Your task to perform on an android device: open sync settings in chrome Image 0: 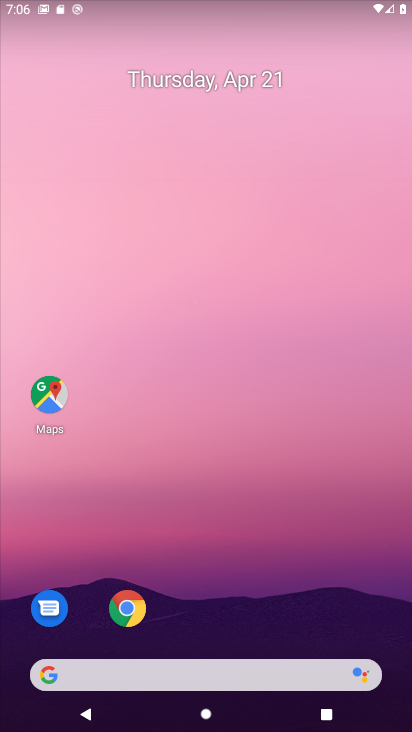
Step 0: click (121, 616)
Your task to perform on an android device: open sync settings in chrome Image 1: 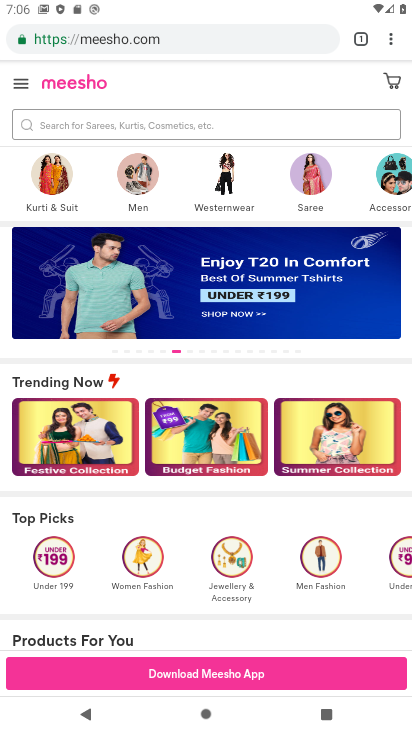
Step 1: drag from (391, 37) to (271, 508)
Your task to perform on an android device: open sync settings in chrome Image 2: 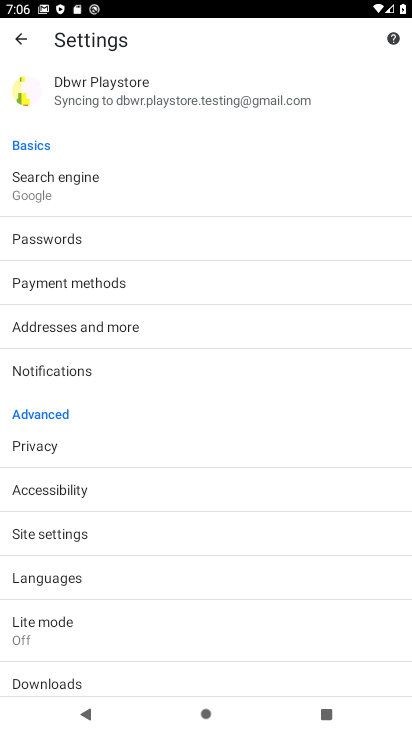
Step 2: drag from (112, 628) to (108, 348)
Your task to perform on an android device: open sync settings in chrome Image 3: 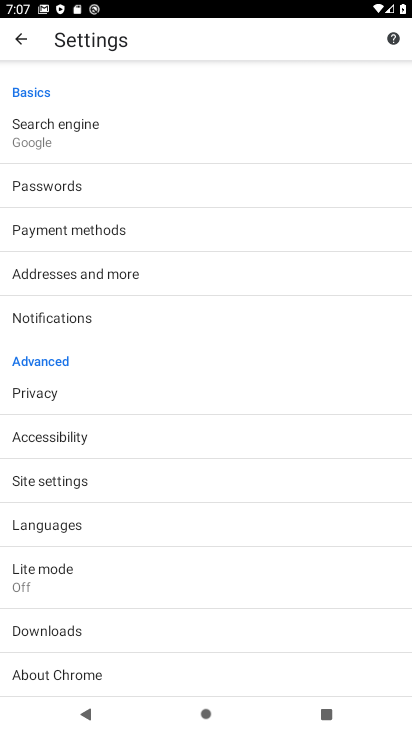
Step 3: click (85, 480)
Your task to perform on an android device: open sync settings in chrome Image 4: 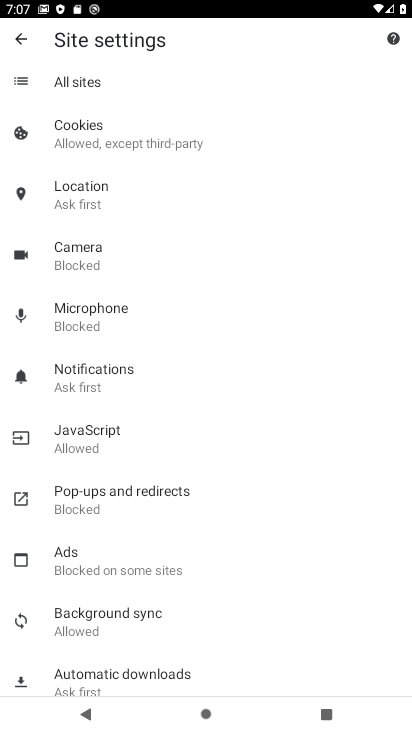
Step 4: drag from (139, 619) to (151, 420)
Your task to perform on an android device: open sync settings in chrome Image 5: 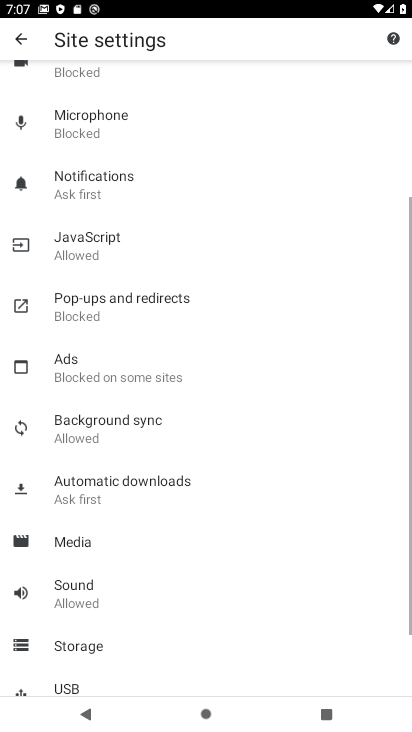
Step 5: click (150, 436)
Your task to perform on an android device: open sync settings in chrome Image 6: 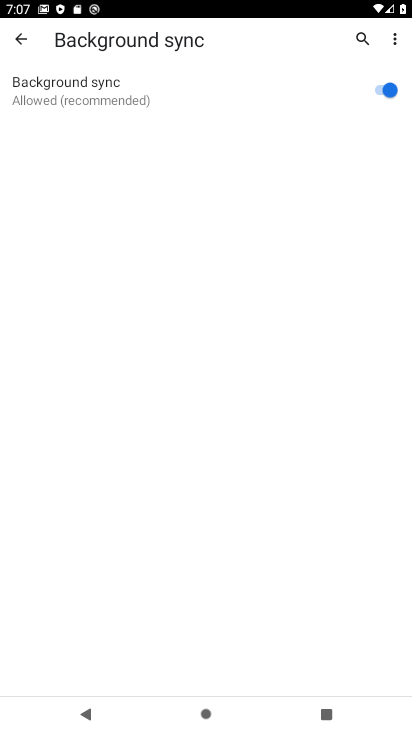
Step 6: task complete